Your task to perform on an android device: Turn on the flashlight Image 0: 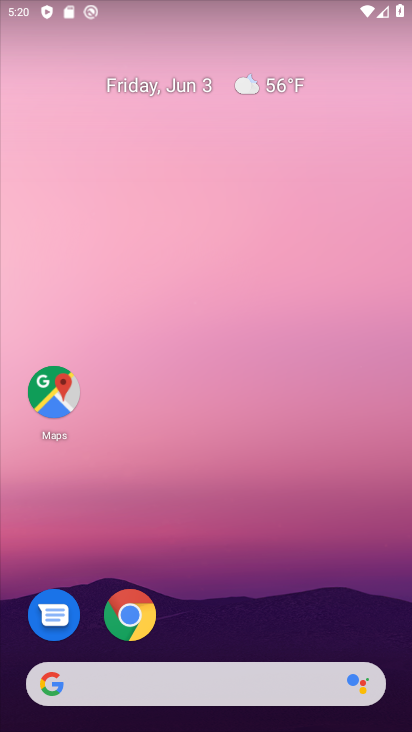
Step 0: drag from (321, 608) to (195, 38)
Your task to perform on an android device: Turn on the flashlight Image 1: 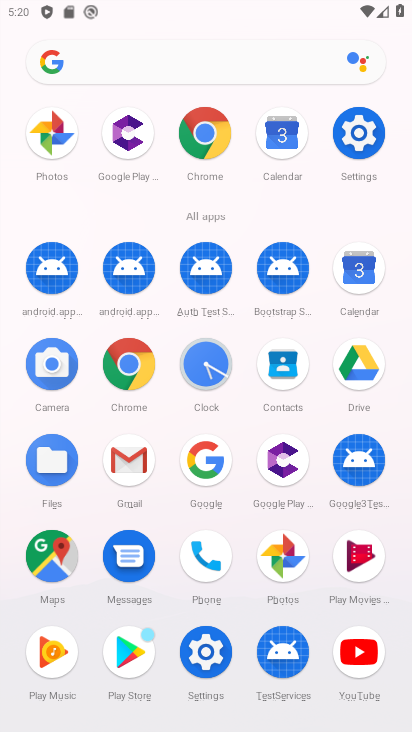
Step 1: click (207, 652)
Your task to perform on an android device: Turn on the flashlight Image 2: 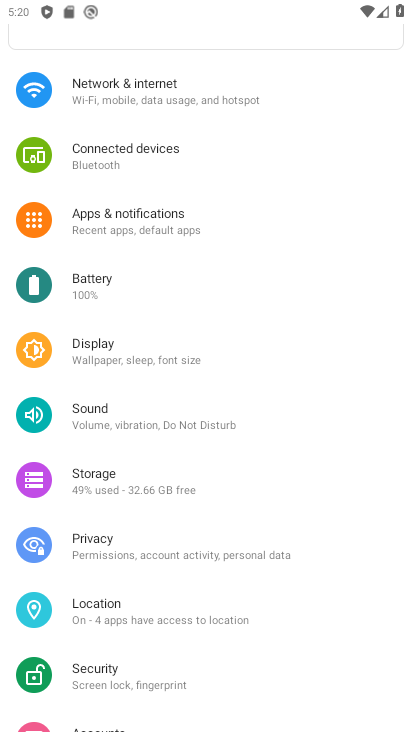
Step 2: drag from (143, 468) to (130, 275)
Your task to perform on an android device: Turn on the flashlight Image 3: 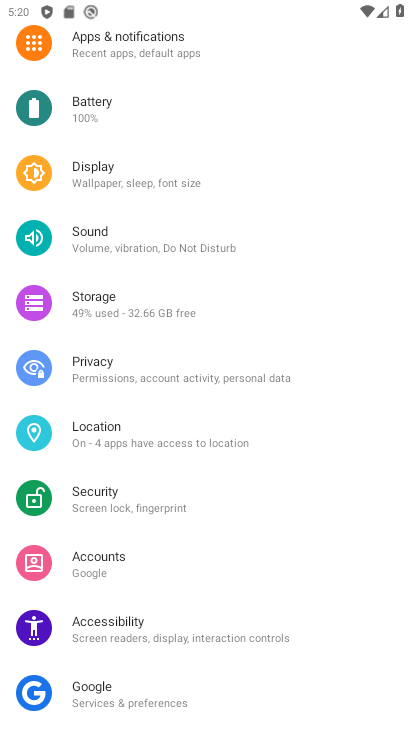
Step 3: drag from (171, 421) to (163, 240)
Your task to perform on an android device: Turn on the flashlight Image 4: 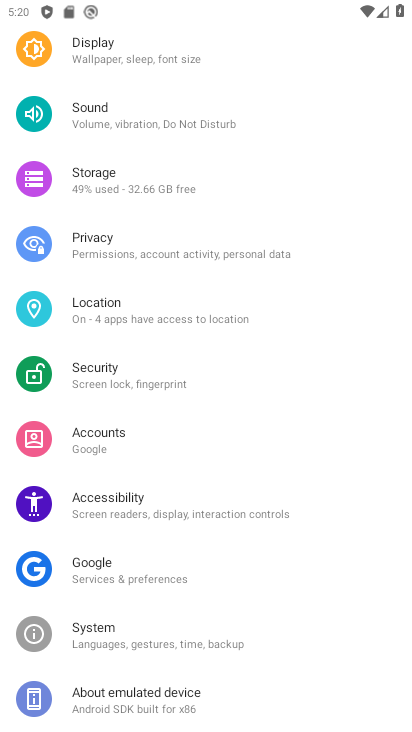
Step 4: drag from (157, 465) to (148, 292)
Your task to perform on an android device: Turn on the flashlight Image 5: 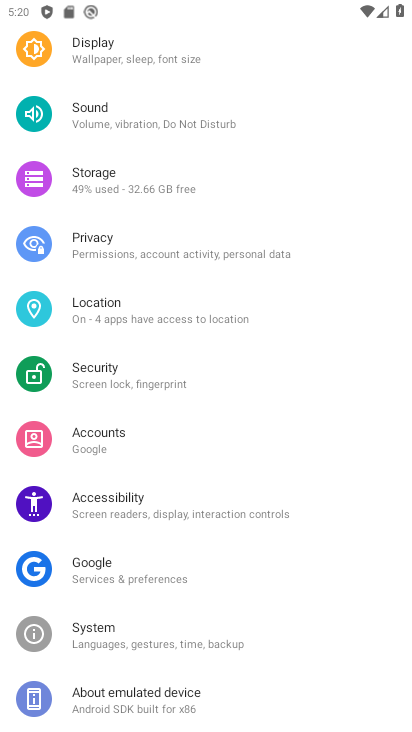
Step 5: click (181, 517)
Your task to perform on an android device: Turn on the flashlight Image 6: 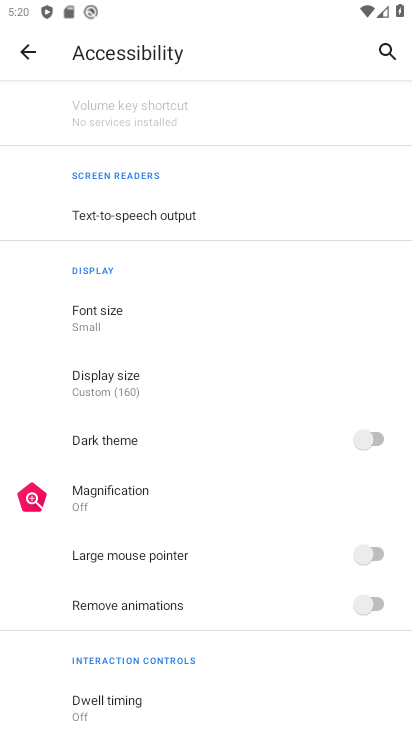
Step 6: drag from (187, 525) to (211, 332)
Your task to perform on an android device: Turn on the flashlight Image 7: 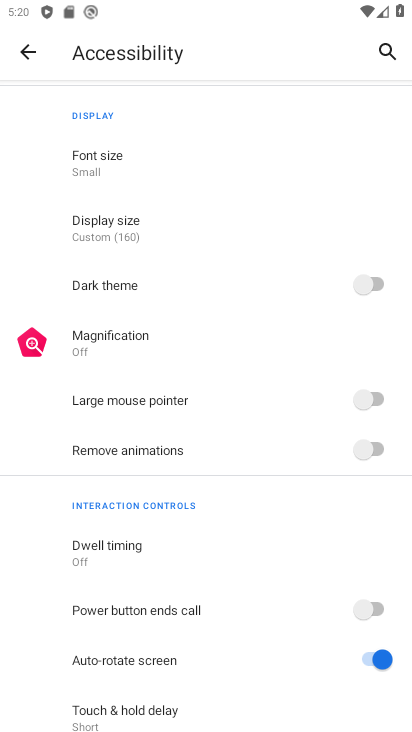
Step 7: drag from (195, 564) to (191, 364)
Your task to perform on an android device: Turn on the flashlight Image 8: 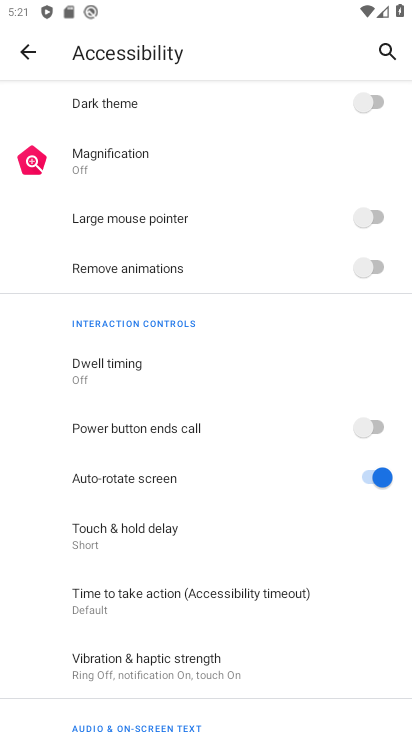
Step 8: drag from (246, 556) to (226, 297)
Your task to perform on an android device: Turn on the flashlight Image 9: 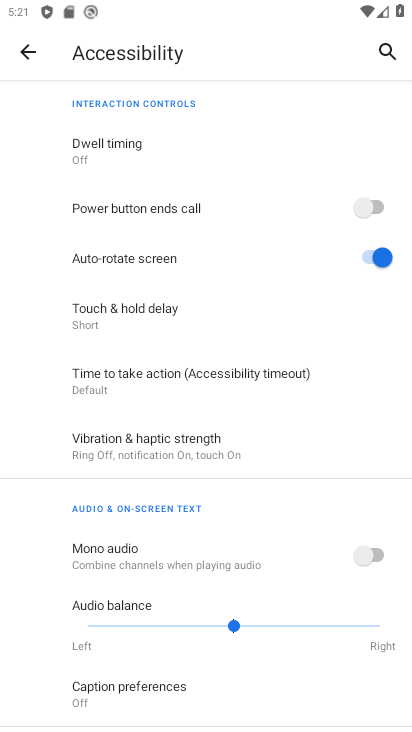
Step 9: drag from (228, 568) to (240, 367)
Your task to perform on an android device: Turn on the flashlight Image 10: 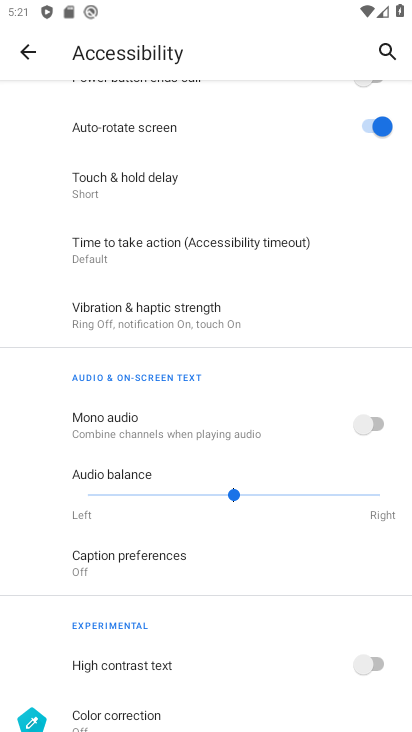
Step 10: drag from (202, 584) to (181, 392)
Your task to perform on an android device: Turn on the flashlight Image 11: 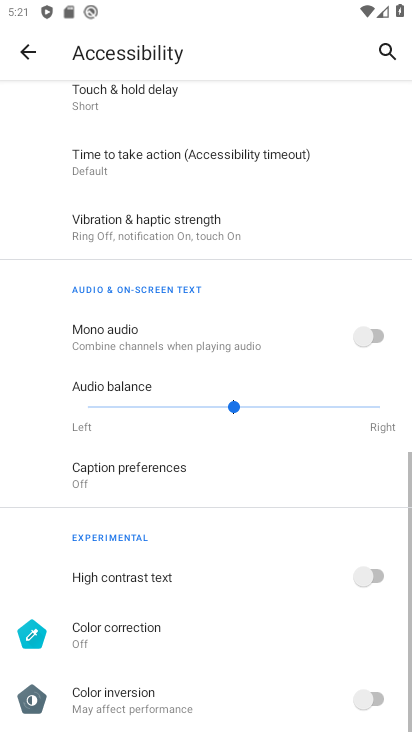
Step 11: drag from (174, 538) to (190, 441)
Your task to perform on an android device: Turn on the flashlight Image 12: 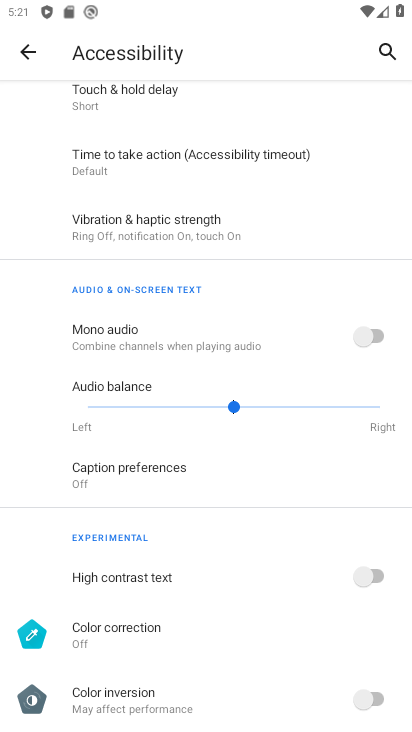
Step 12: press back button
Your task to perform on an android device: Turn on the flashlight Image 13: 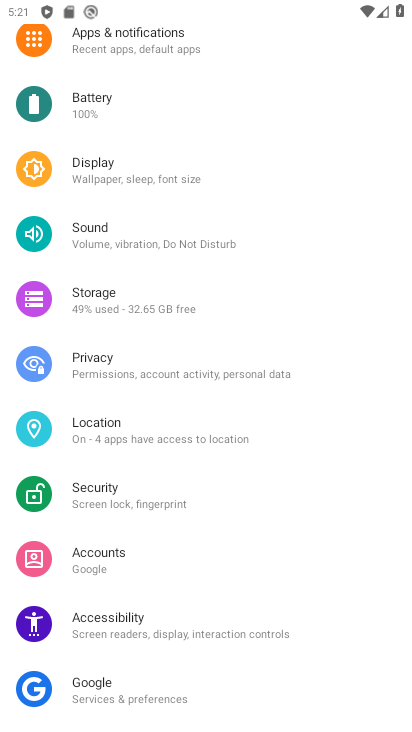
Step 13: drag from (131, 663) to (180, 565)
Your task to perform on an android device: Turn on the flashlight Image 14: 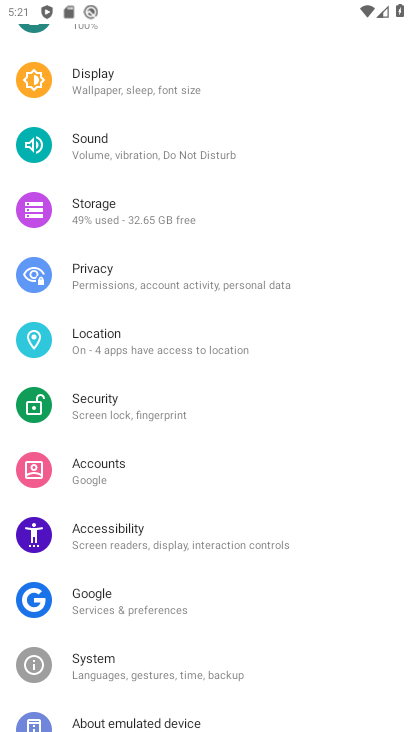
Step 14: click (128, 675)
Your task to perform on an android device: Turn on the flashlight Image 15: 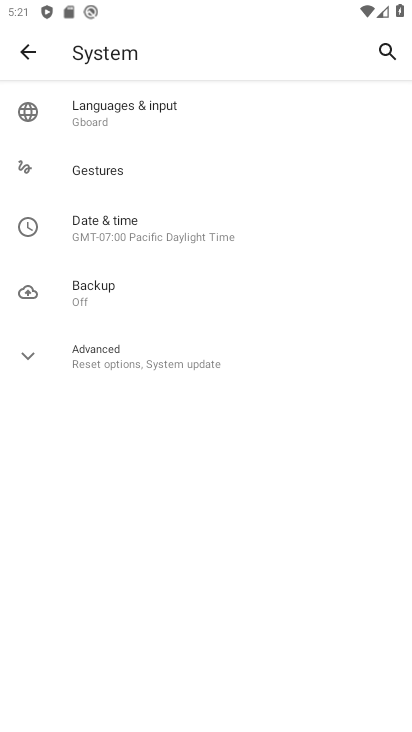
Step 15: click (145, 357)
Your task to perform on an android device: Turn on the flashlight Image 16: 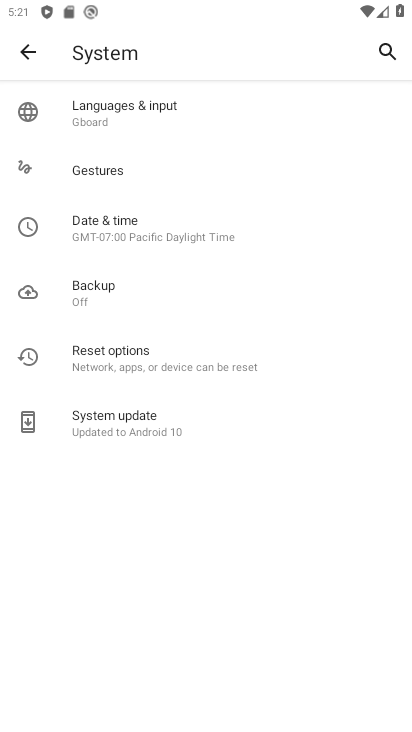
Step 16: press back button
Your task to perform on an android device: Turn on the flashlight Image 17: 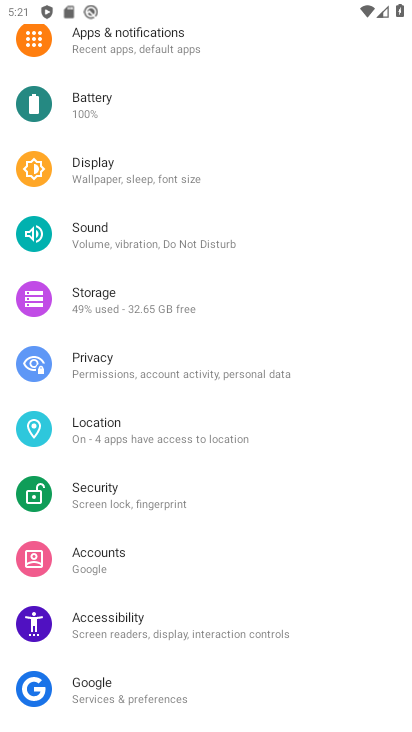
Step 17: click (194, 185)
Your task to perform on an android device: Turn on the flashlight Image 18: 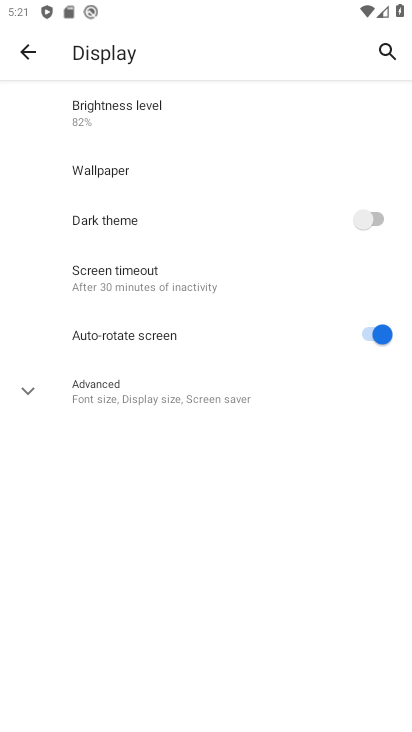
Step 18: click (180, 391)
Your task to perform on an android device: Turn on the flashlight Image 19: 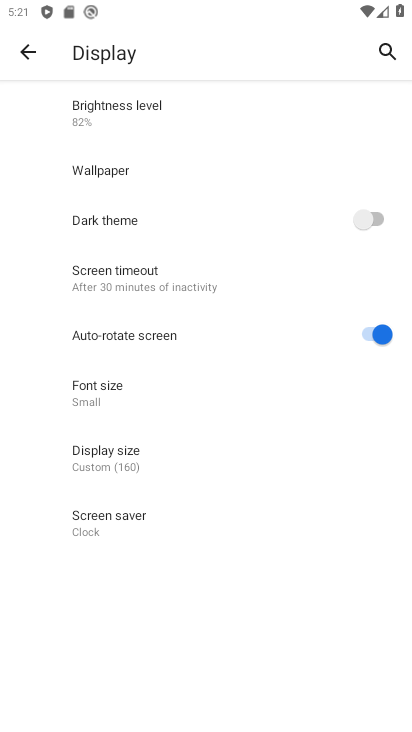
Step 19: task complete